Your task to perform on an android device: turn notification dots on Image 0: 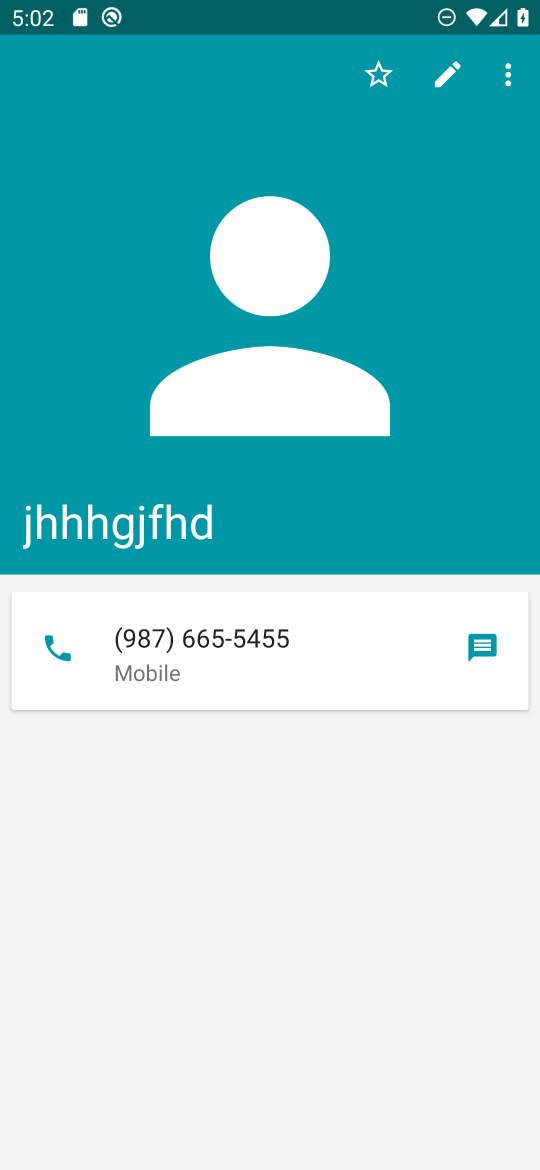
Step 0: press home button
Your task to perform on an android device: turn notification dots on Image 1: 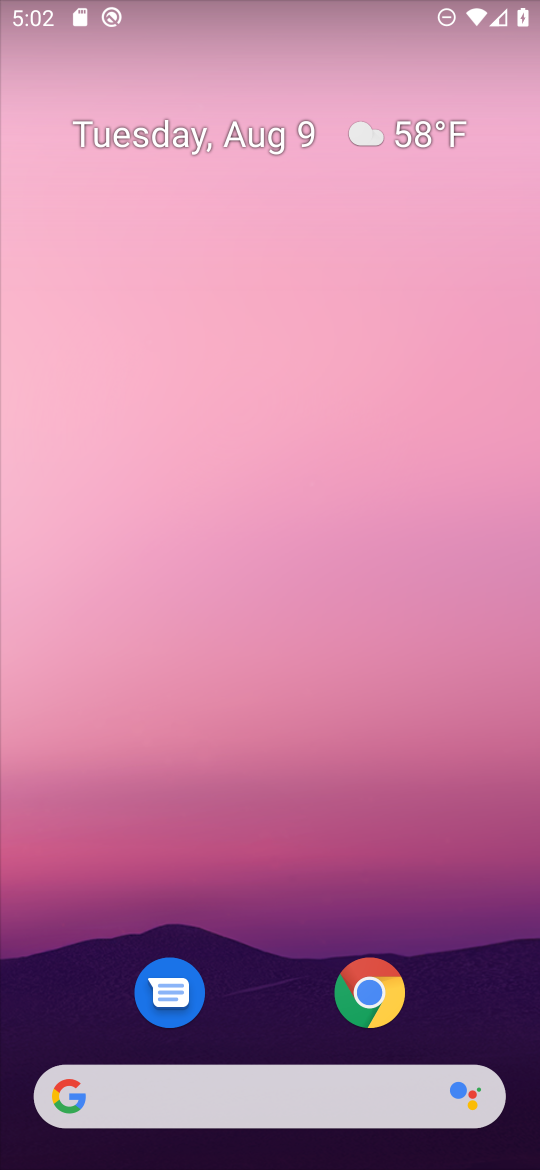
Step 1: click (175, 1088)
Your task to perform on an android device: turn notification dots on Image 2: 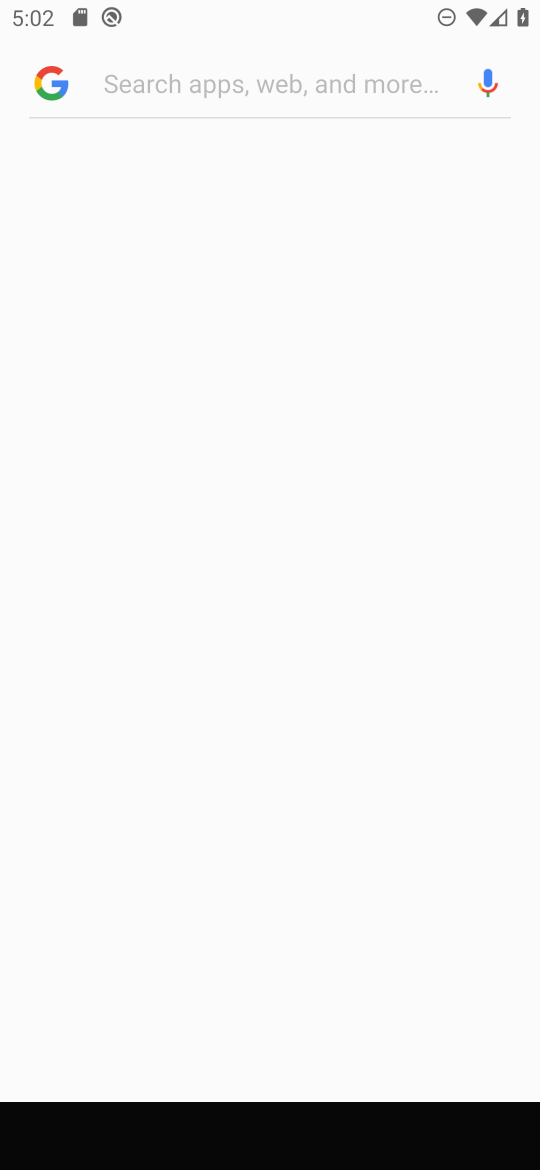
Step 2: drag from (175, 1088) to (82, 462)
Your task to perform on an android device: turn notification dots on Image 3: 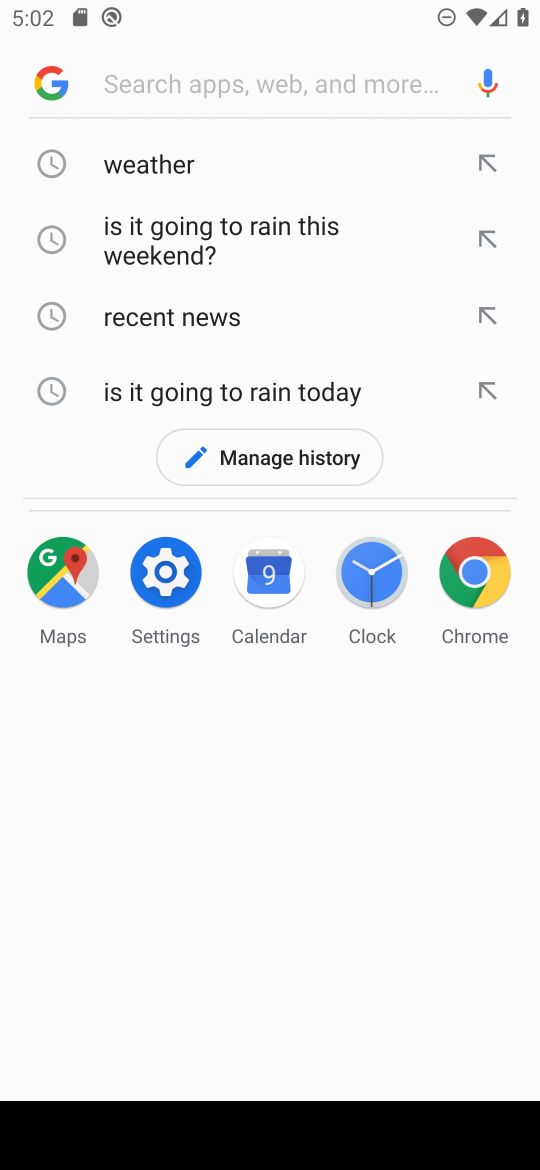
Step 3: press home button
Your task to perform on an android device: turn notification dots on Image 4: 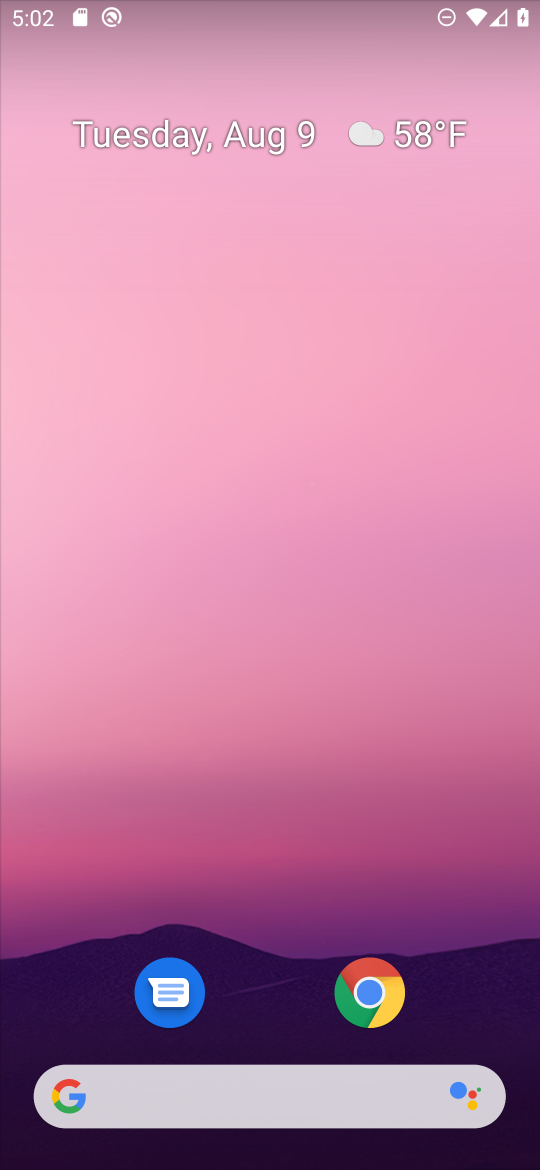
Step 4: drag from (211, 1062) to (78, 150)
Your task to perform on an android device: turn notification dots on Image 5: 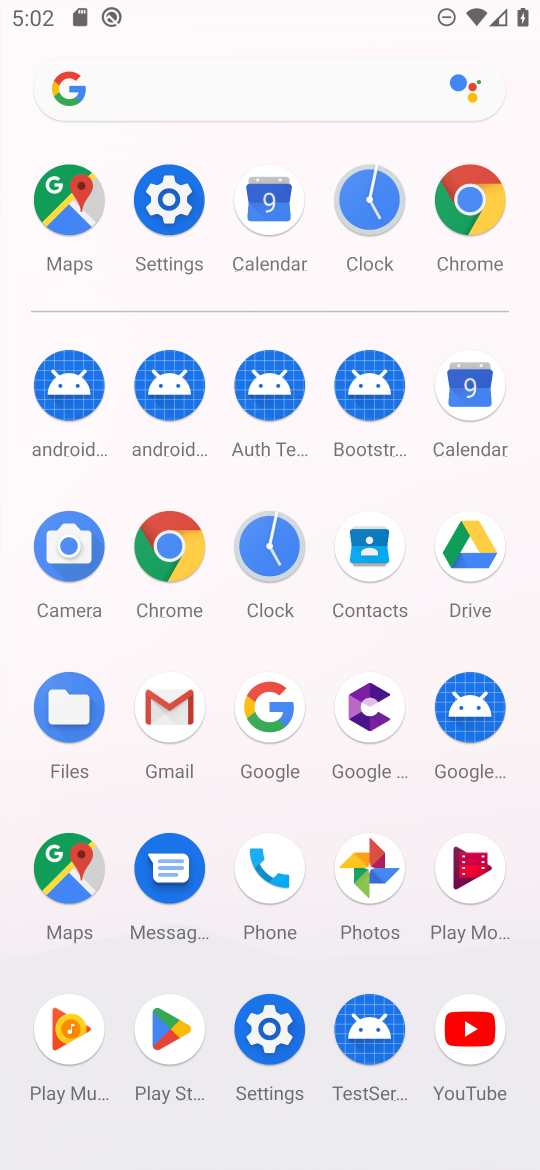
Step 5: click (163, 219)
Your task to perform on an android device: turn notification dots on Image 6: 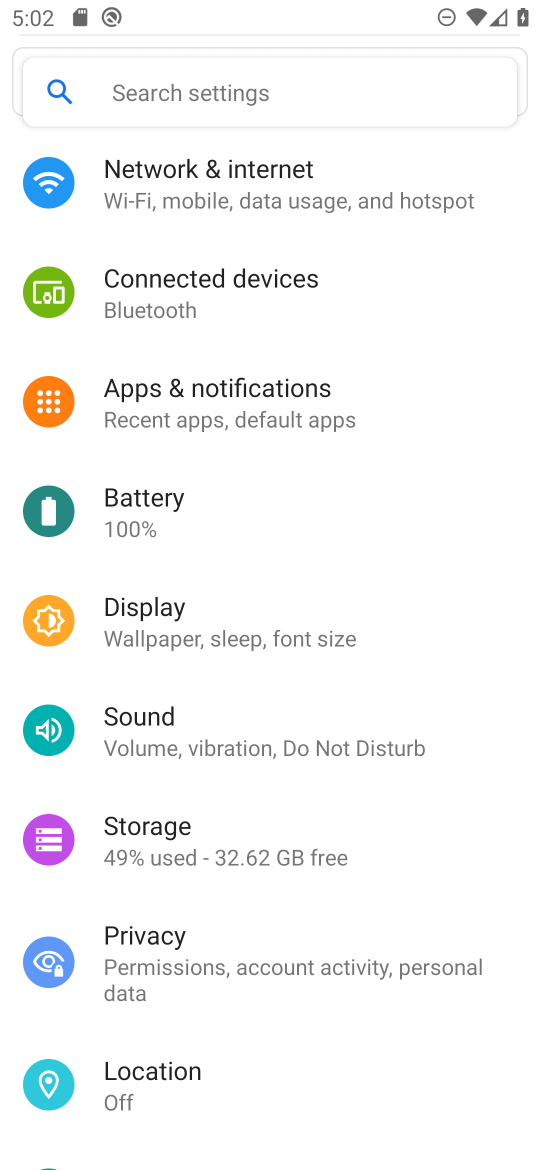
Step 6: click (163, 219)
Your task to perform on an android device: turn notification dots on Image 7: 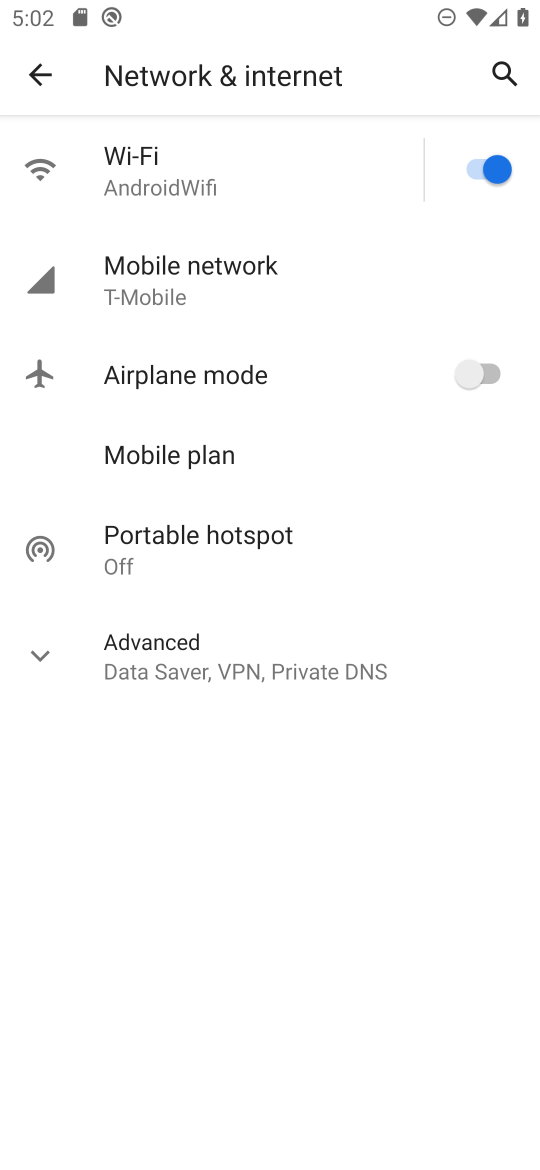
Step 7: press back button
Your task to perform on an android device: turn notification dots on Image 8: 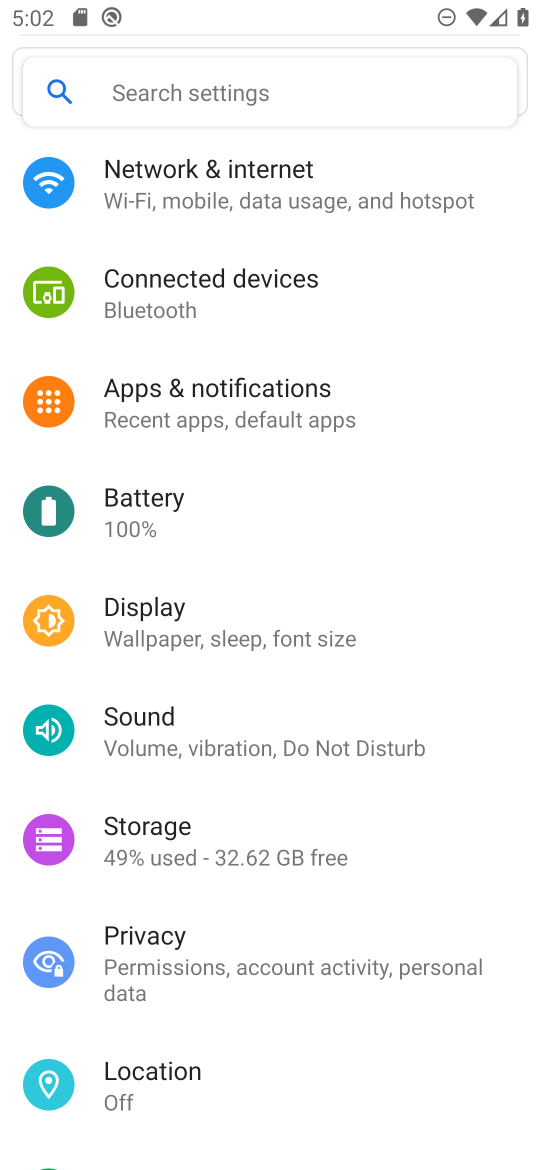
Step 8: click (148, 401)
Your task to perform on an android device: turn notification dots on Image 9: 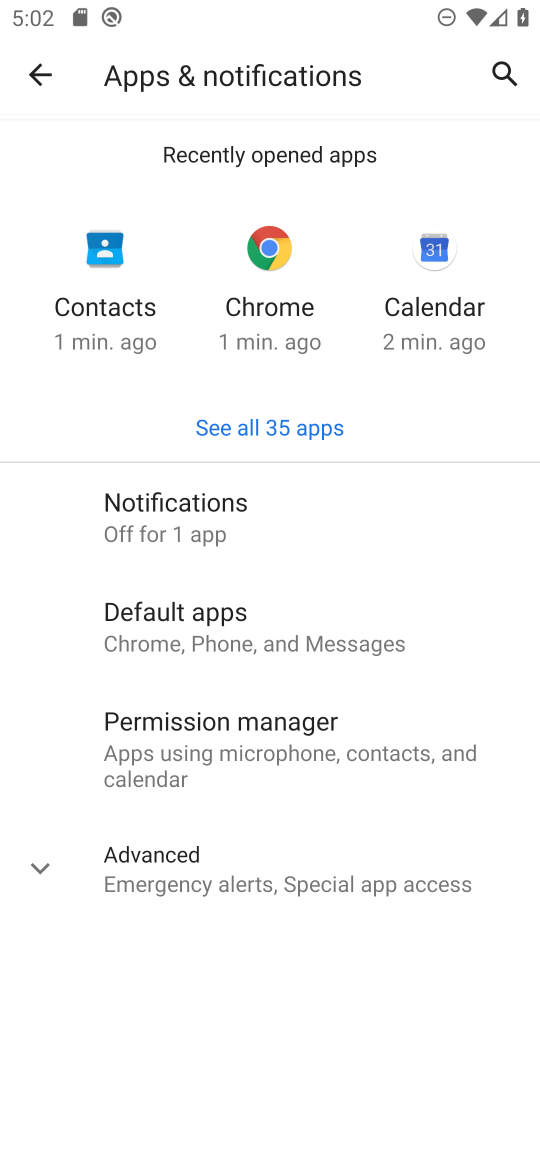
Step 9: click (186, 534)
Your task to perform on an android device: turn notification dots on Image 10: 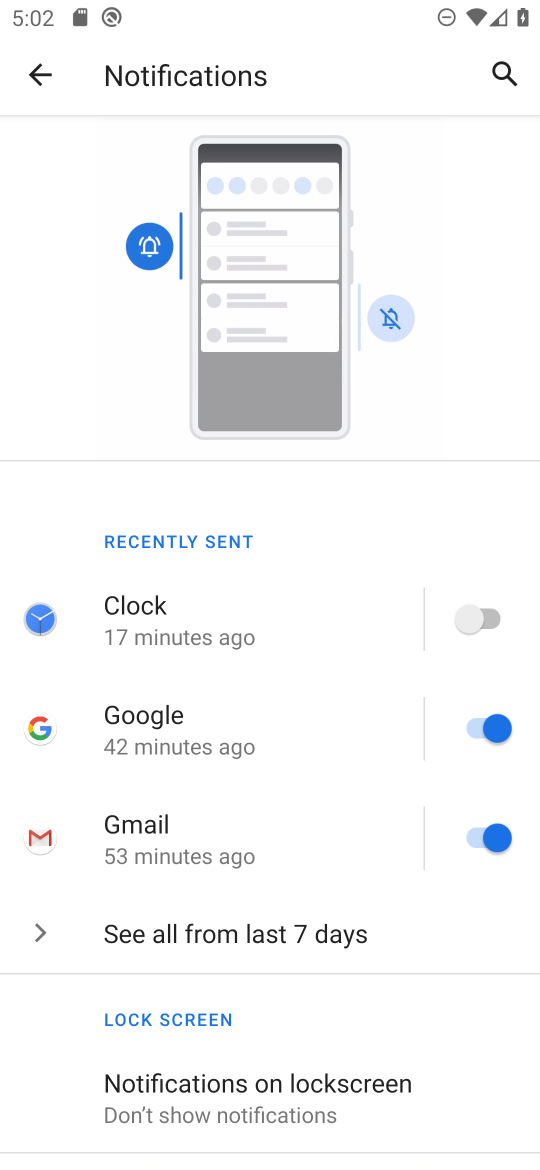
Step 10: drag from (508, 1062) to (436, 292)
Your task to perform on an android device: turn notification dots on Image 11: 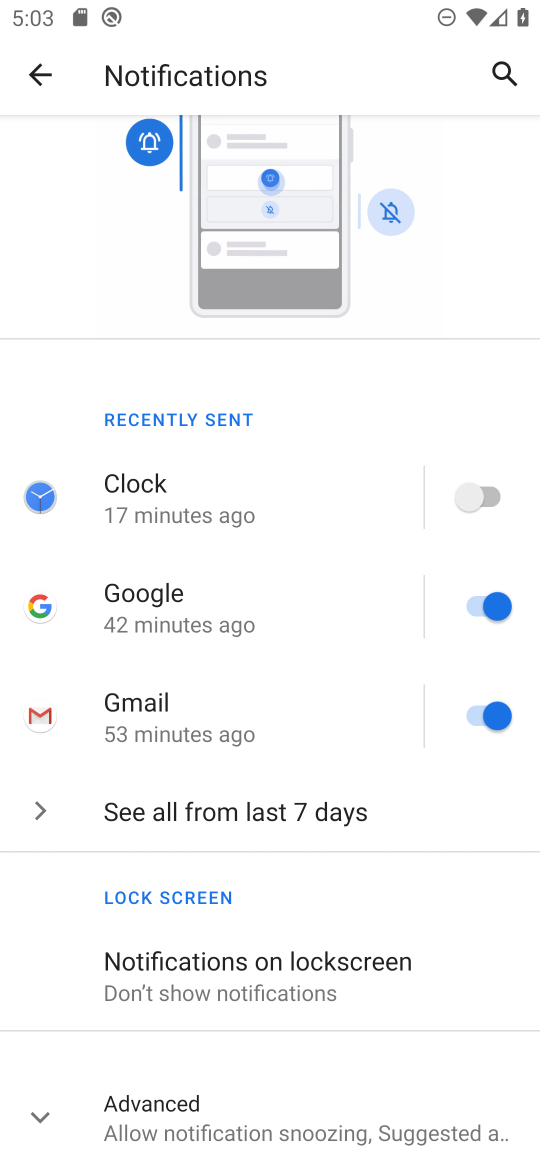
Step 11: click (109, 1137)
Your task to perform on an android device: turn notification dots on Image 12: 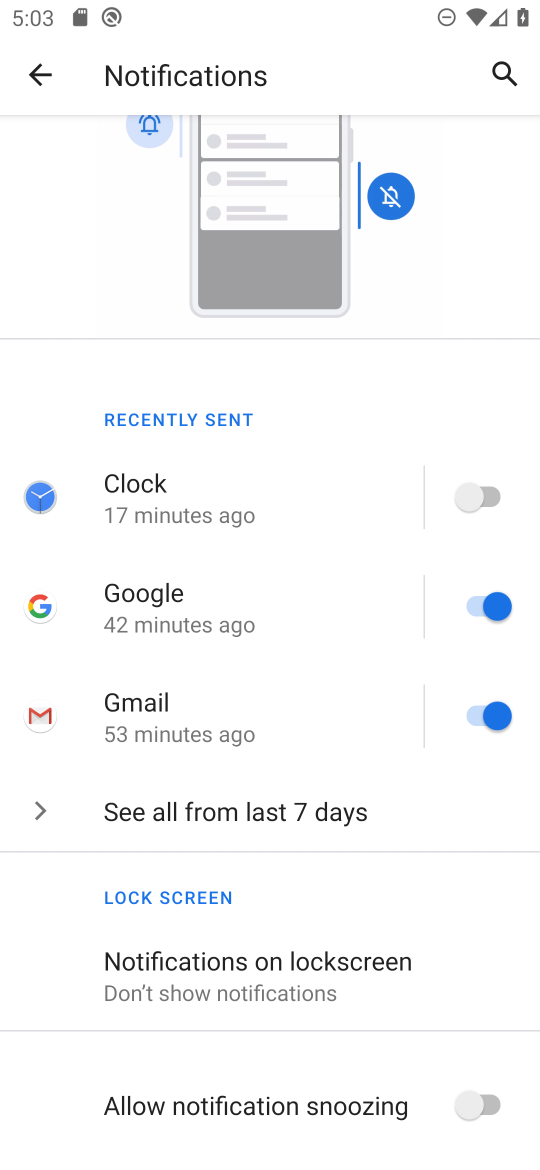
Step 12: drag from (356, 1058) to (401, 394)
Your task to perform on an android device: turn notification dots on Image 13: 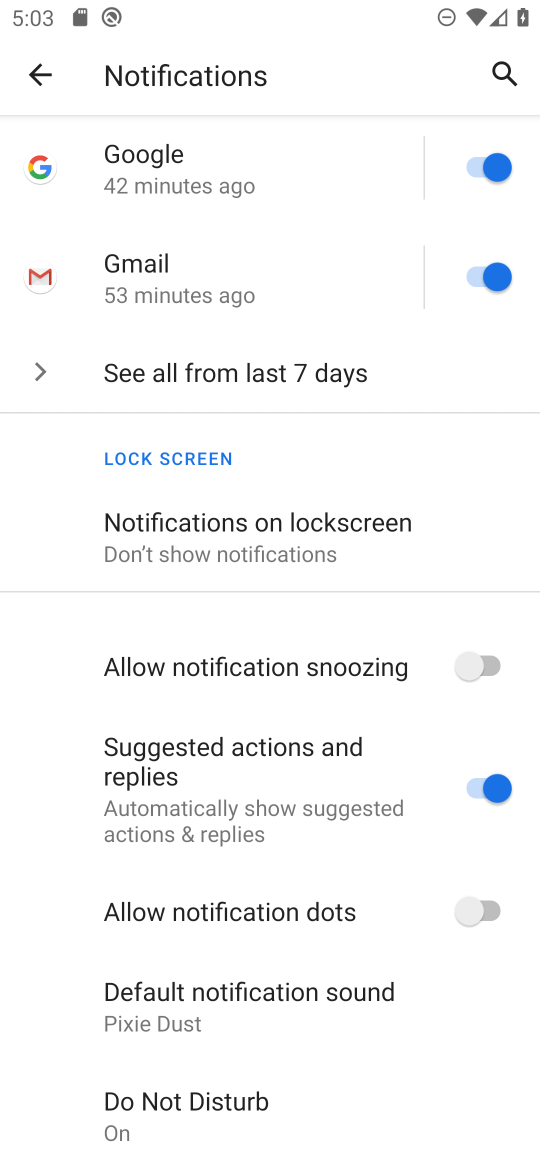
Step 13: click (497, 902)
Your task to perform on an android device: turn notification dots on Image 14: 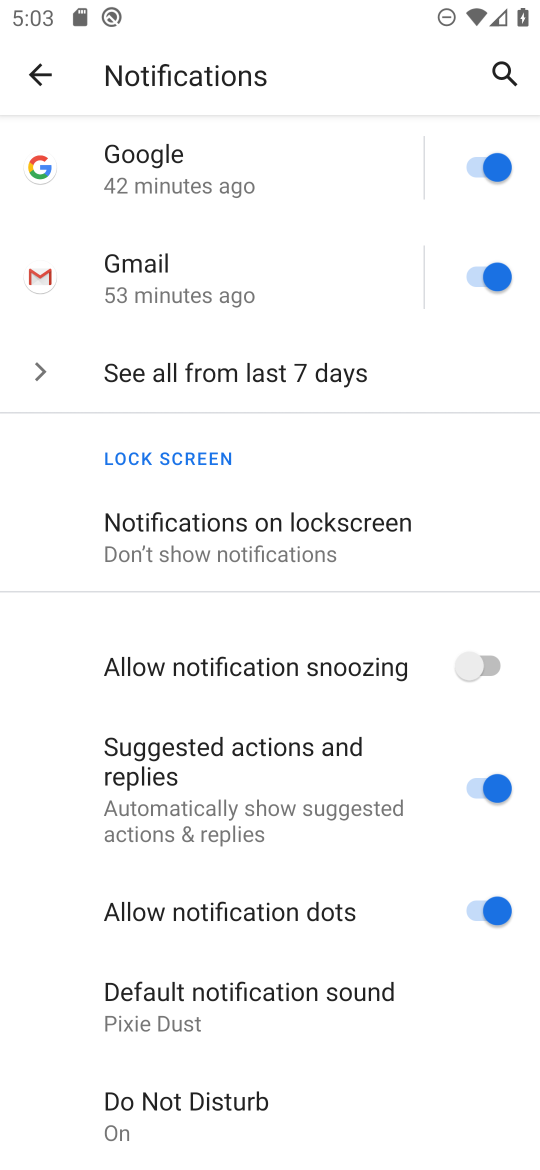
Step 14: task complete